Your task to perform on an android device: Open calendar and show me the first week of next month Image 0: 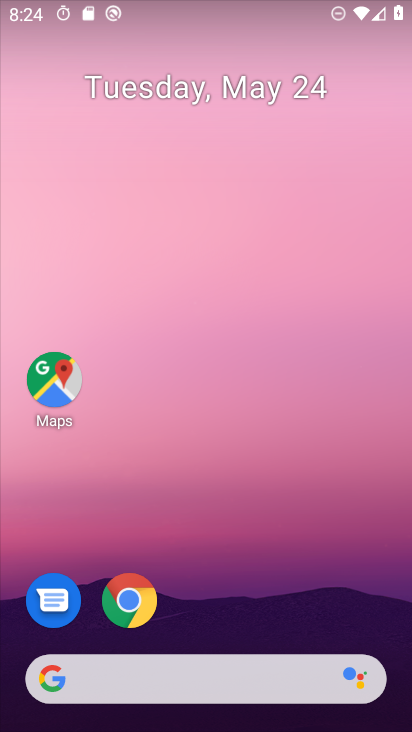
Step 0: drag from (216, 614) to (176, 2)
Your task to perform on an android device: Open calendar and show me the first week of next month Image 1: 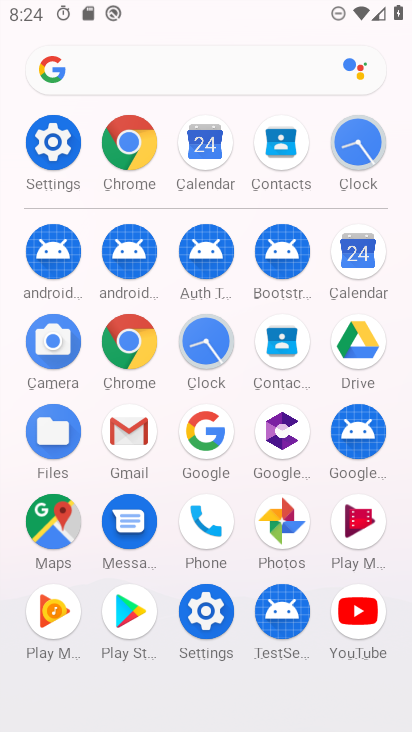
Step 1: click (210, 153)
Your task to perform on an android device: Open calendar and show me the first week of next month Image 2: 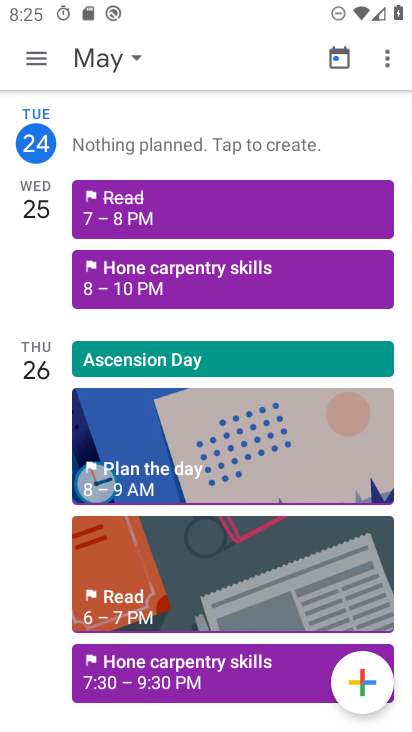
Step 2: click (127, 54)
Your task to perform on an android device: Open calendar and show me the first week of next month Image 3: 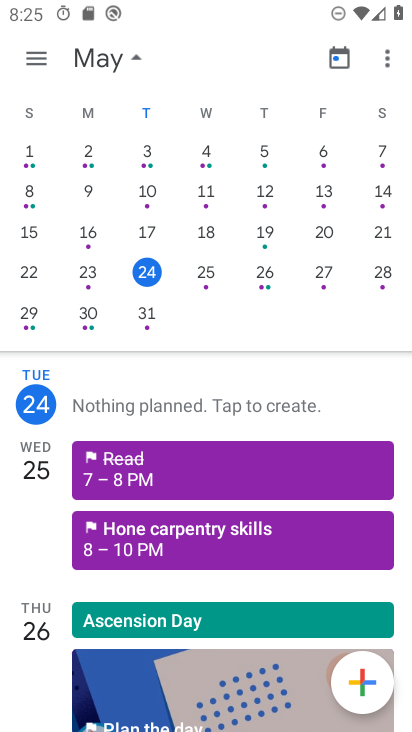
Step 3: drag from (357, 218) to (4, 207)
Your task to perform on an android device: Open calendar and show me the first week of next month Image 4: 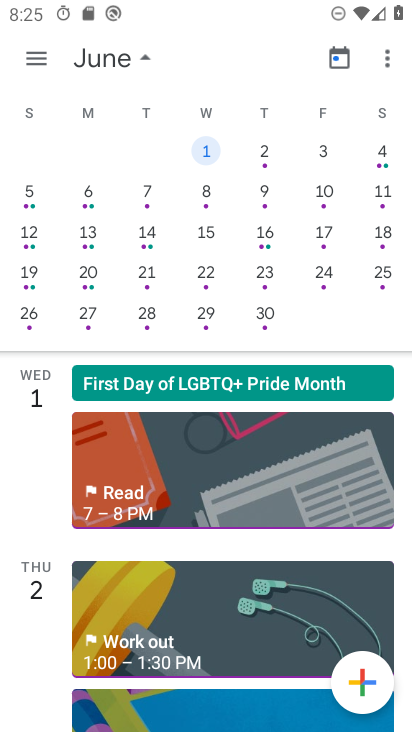
Step 4: click (208, 145)
Your task to perform on an android device: Open calendar and show me the first week of next month Image 5: 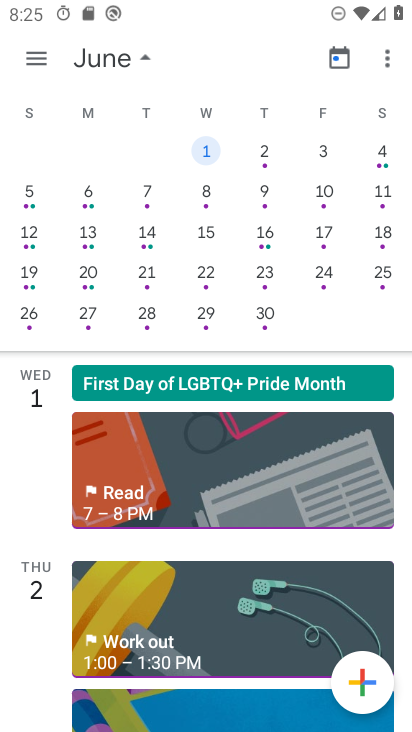
Step 5: task complete